Your task to perform on an android device: change notification settings in the gmail app Image 0: 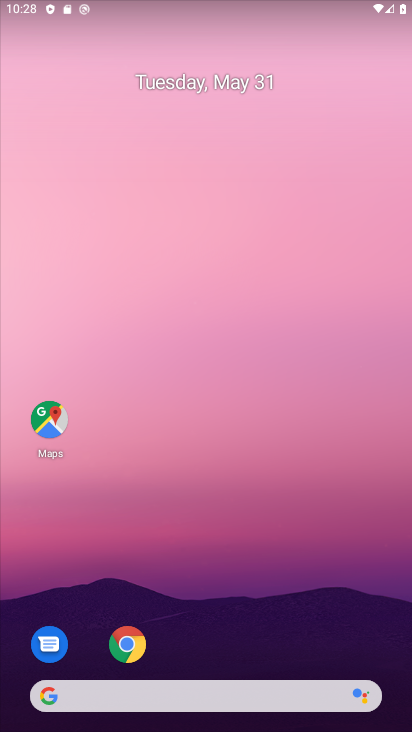
Step 0: click (124, 641)
Your task to perform on an android device: change notification settings in the gmail app Image 1: 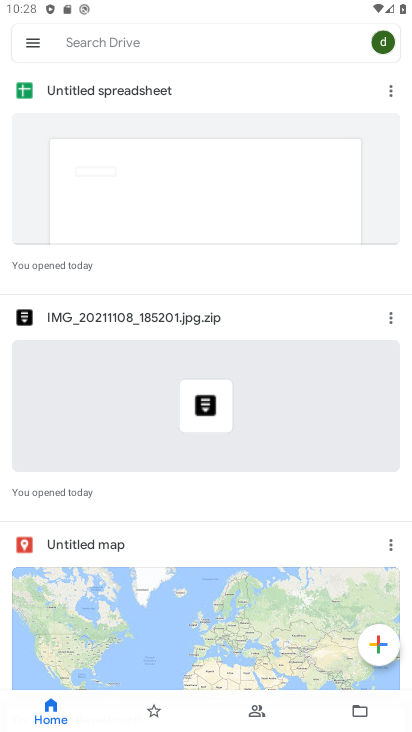
Step 1: press home button
Your task to perform on an android device: change notification settings in the gmail app Image 2: 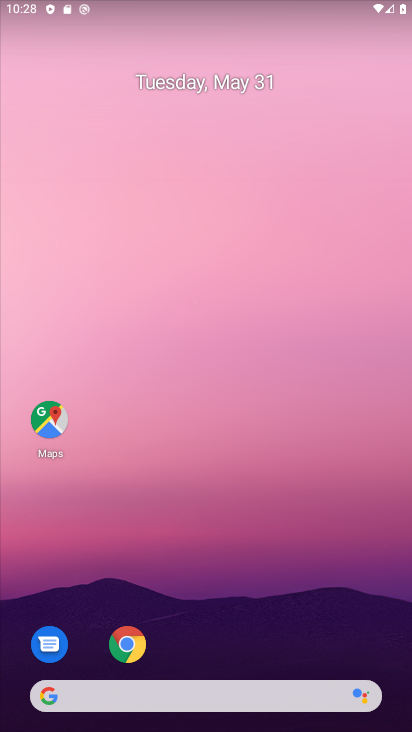
Step 2: drag from (187, 645) to (186, 228)
Your task to perform on an android device: change notification settings in the gmail app Image 3: 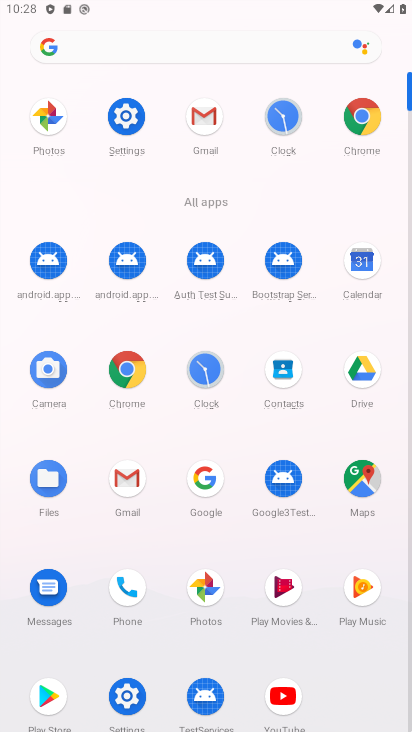
Step 3: click (207, 118)
Your task to perform on an android device: change notification settings in the gmail app Image 4: 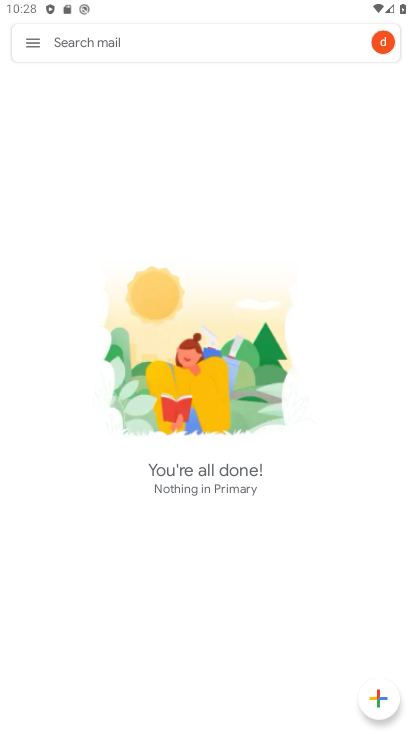
Step 4: click (36, 40)
Your task to perform on an android device: change notification settings in the gmail app Image 5: 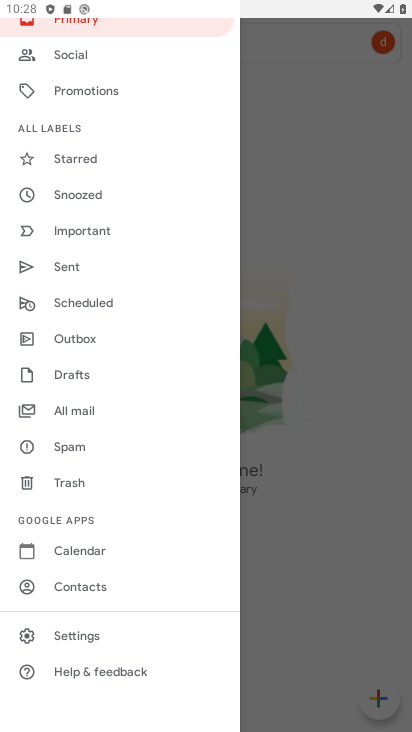
Step 5: click (73, 630)
Your task to perform on an android device: change notification settings in the gmail app Image 6: 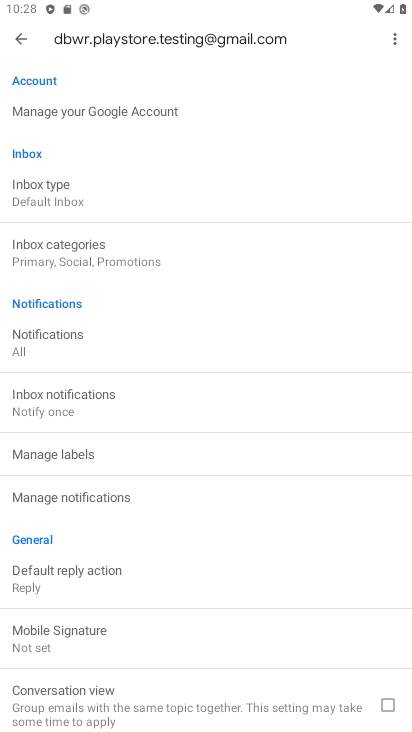
Step 6: click (86, 499)
Your task to perform on an android device: change notification settings in the gmail app Image 7: 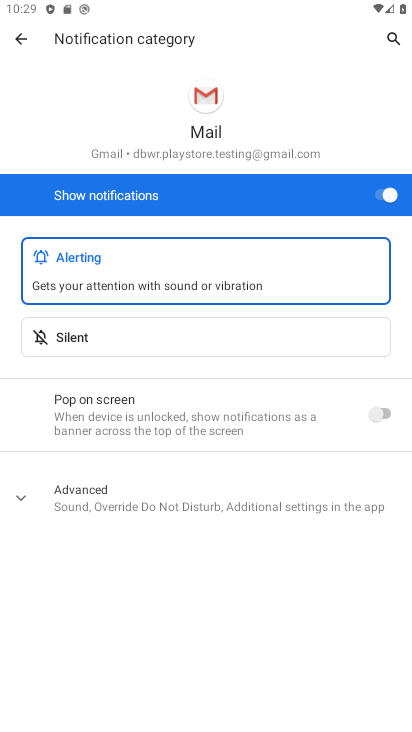
Step 7: click (394, 208)
Your task to perform on an android device: change notification settings in the gmail app Image 8: 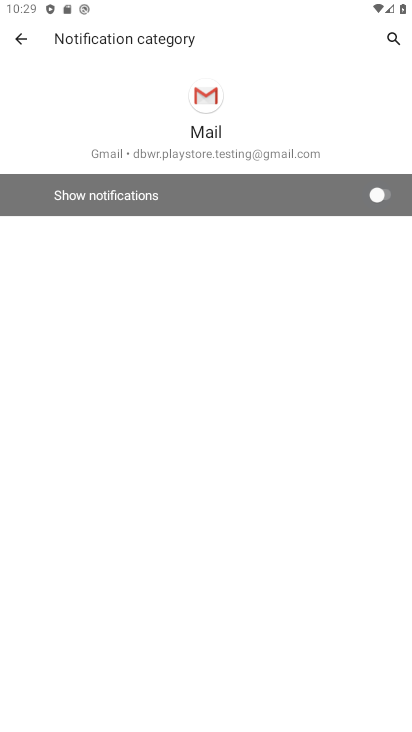
Step 8: click (394, 208)
Your task to perform on an android device: change notification settings in the gmail app Image 9: 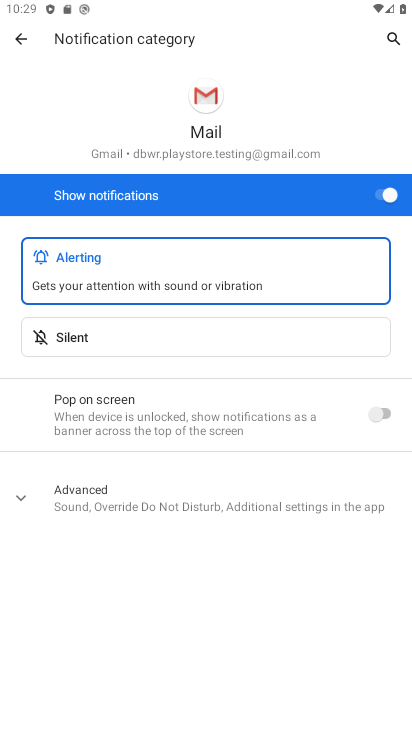
Step 9: task complete